Your task to perform on an android device: turn notification dots on Image 0: 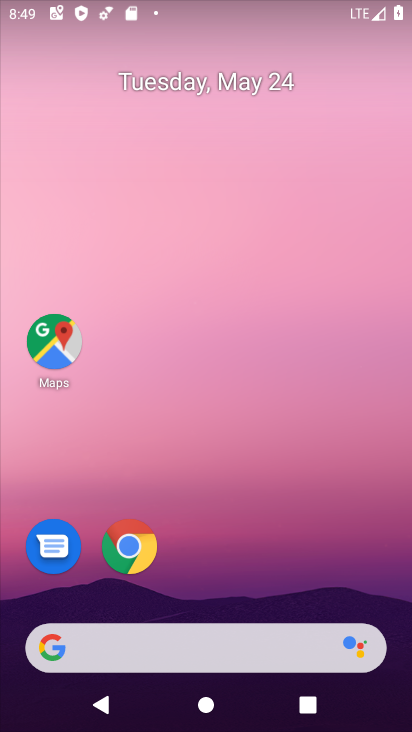
Step 0: drag from (245, 560) to (271, 5)
Your task to perform on an android device: turn notification dots on Image 1: 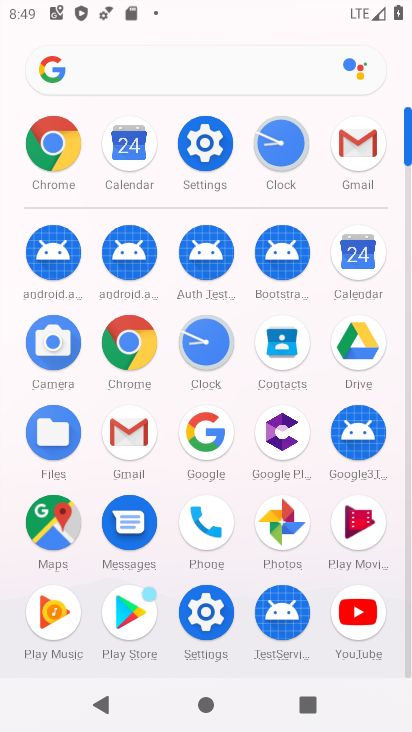
Step 1: click (203, 136)
Your task to perform on an android device: turn notification dots on Image 2: 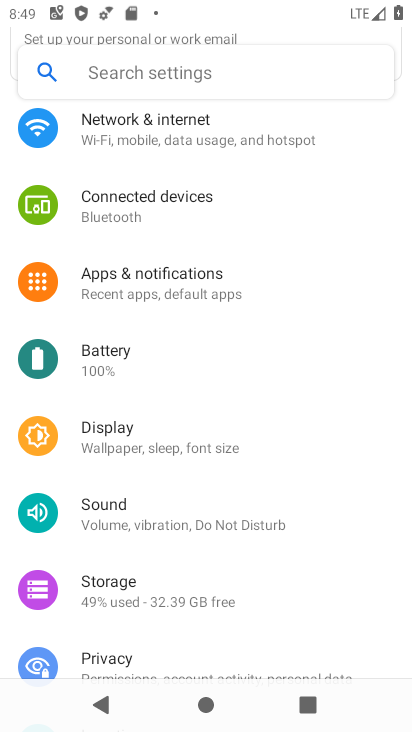
Step 2: click (207, 282)
Your task to perform on an android device: turn notification dots on Image 3: 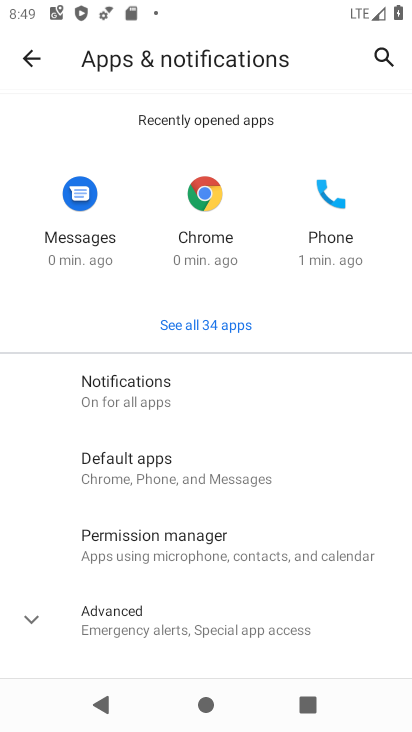
Step 3: click (199, 388)
Your task to perform on an android device: turn notification dots on Image 4: 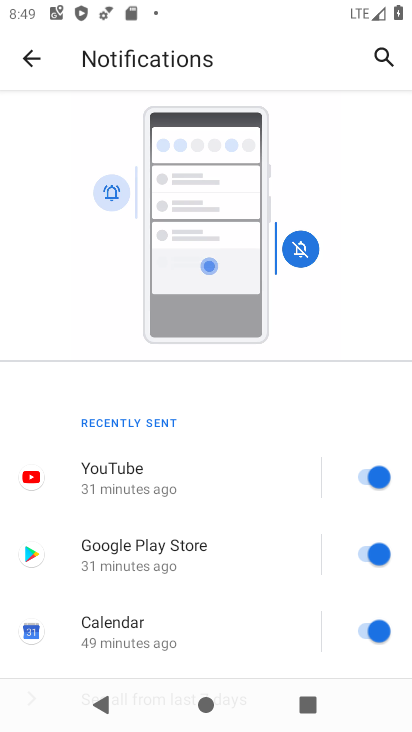
Step 4: drag from (205, 570) to (227, 130)
Your task to perform on an android device: turn notification dots on Image 5: 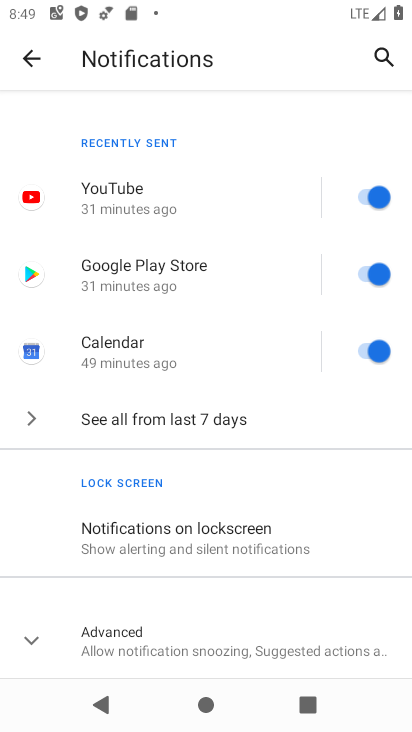
Step 5: click (34, 638)
Your task to perform on an android device: turn notification dots on Image 6: 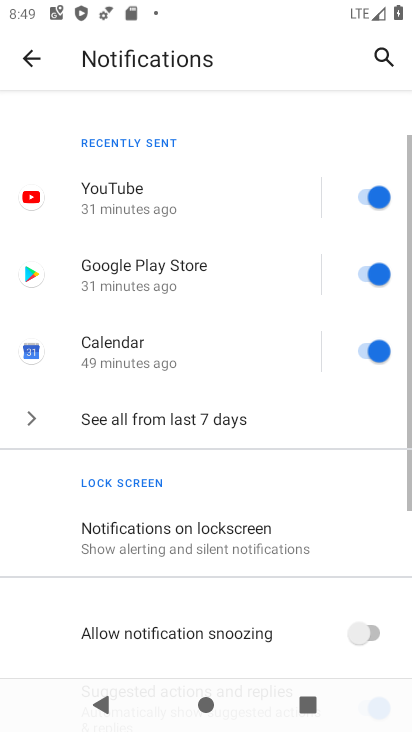
Step 6: task complete